Your task to perform on an android device: Set the phone to "Do not disturb". Image 0: 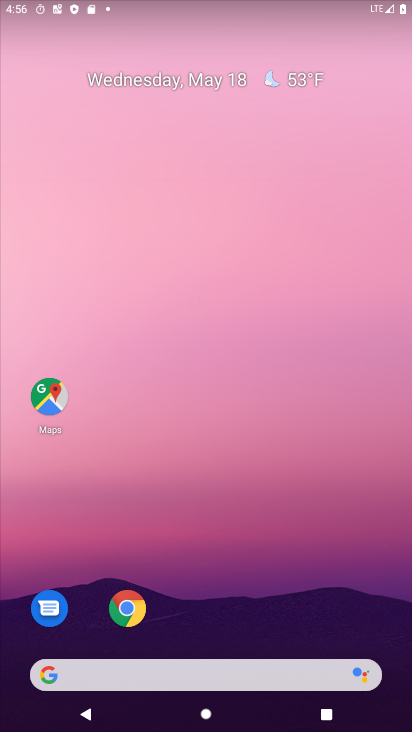
Step 0: drag from (168, 567) to (139, 35)
Your task to perform on an android device: Set the phone to "Do not disturb". Image 1: 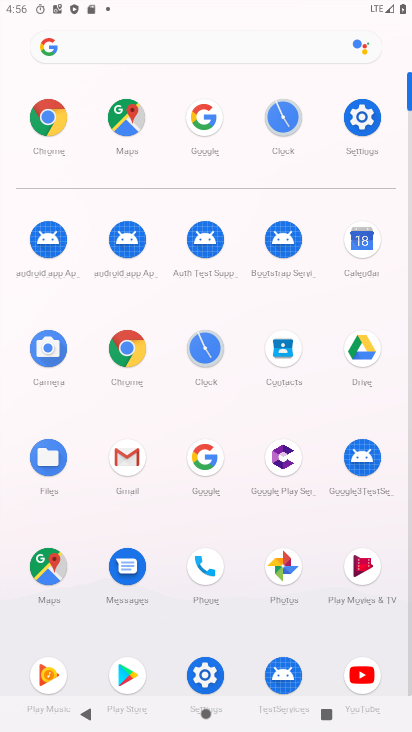
Step 1: click (354, 128)
Your task to perform on an android device: Set the phone to "Do not disturb". Image 2: 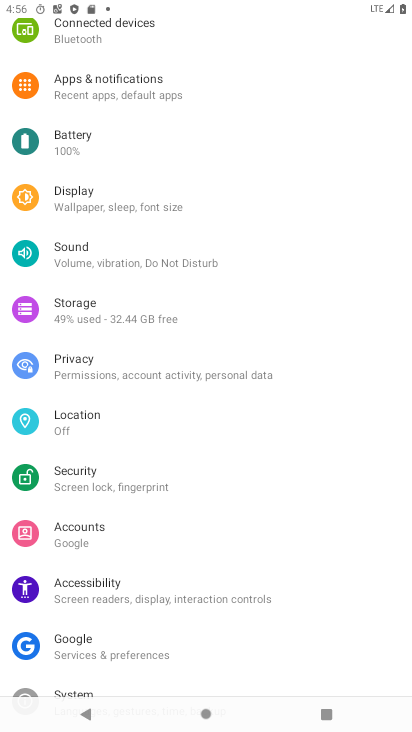
Step 2: click (128, 259)
Your task to perform on an android device: Set the phone to "Do not disturb". Image 3: 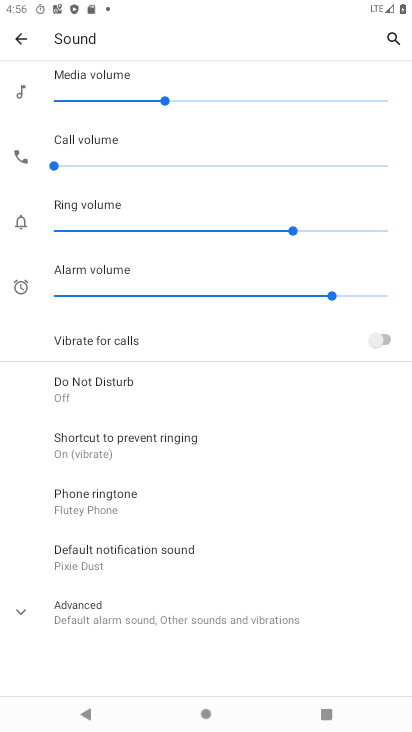
Step 3: click (91, 382)
Your task to perform on an android device: Set the phone to "Do not disturb". Image 4: 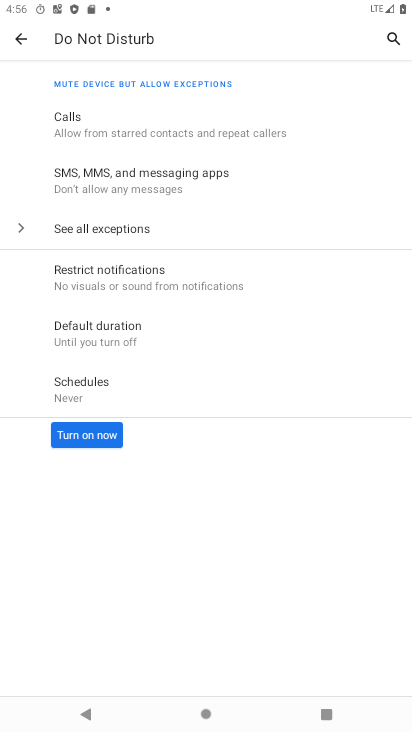
Step 4: click (84, 435)
Your task to perform on an android device: Set the phone to "Do not disturb". Image 5: 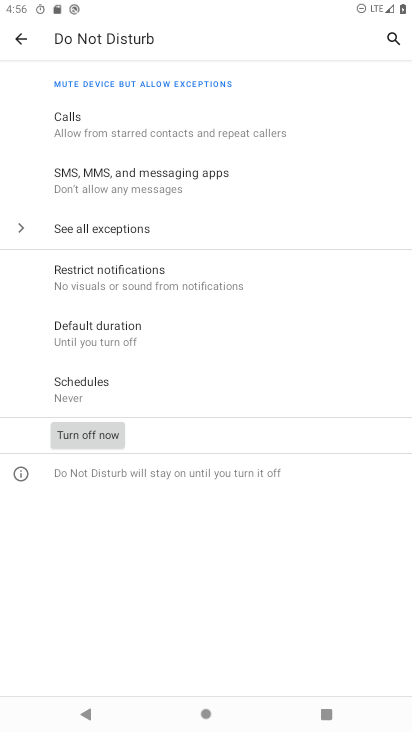
Step 5: task complete